Your task to perform on an android device: Open the stopwatch Image 0: 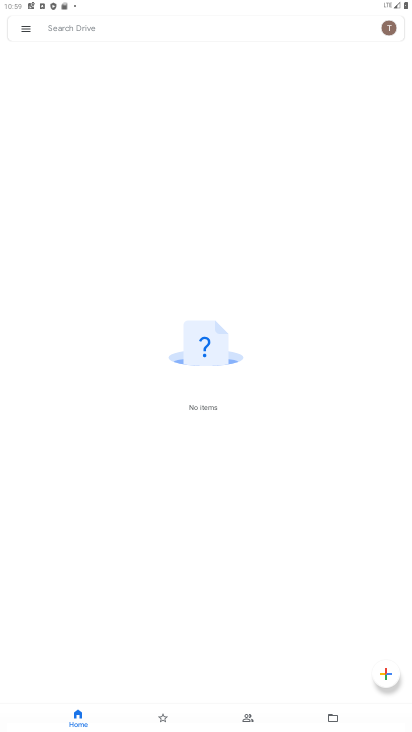
Step 0: press enter
Your task to perform on an android device: Open the stopwatch Image 1: 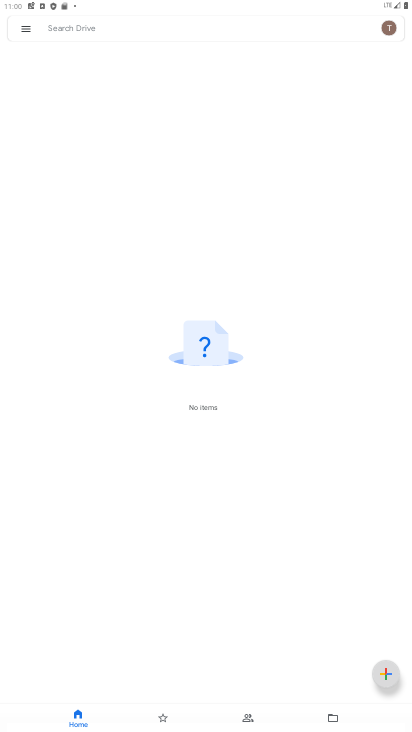
Step 1: press home button
Your task to perform on an android device: Open the stopwatch Image 2: 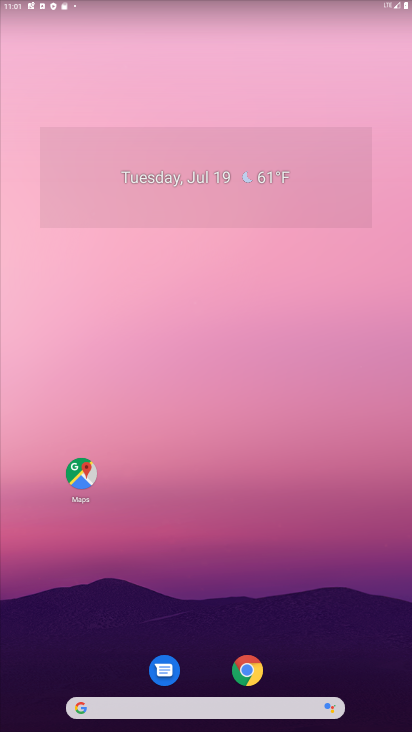
Step 2: drag from (269, 546) to (352, 123)
Your task to perform on an android device: Open the stopwatch Image 3: 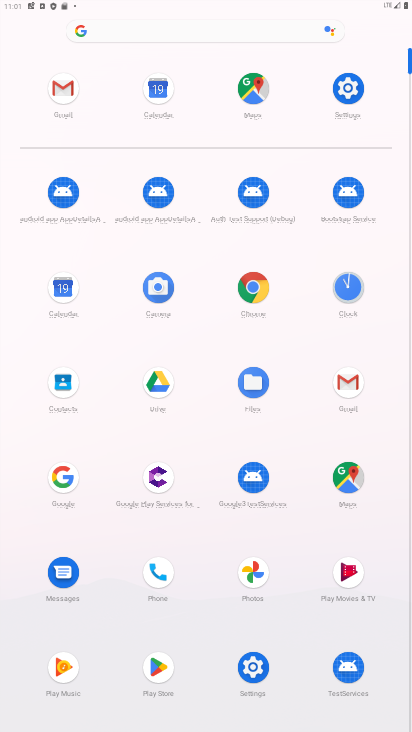
Step 3: click (346, 287)
Your task to perform on an android device: Open the stopwatch Image 4: 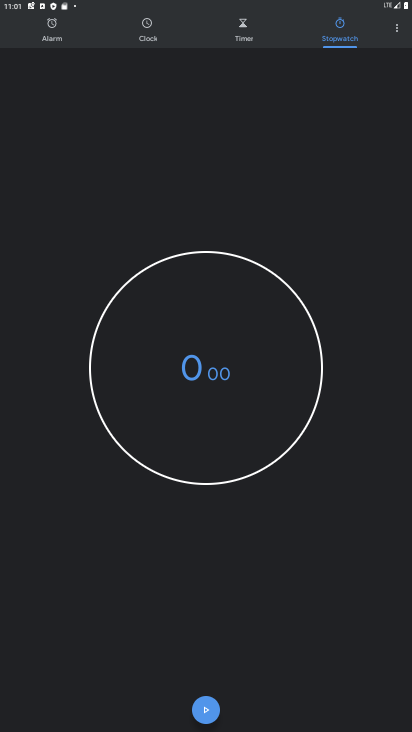
Step 4: task complete